Your task to perform on an android device: install app "Google Home" Image 0: 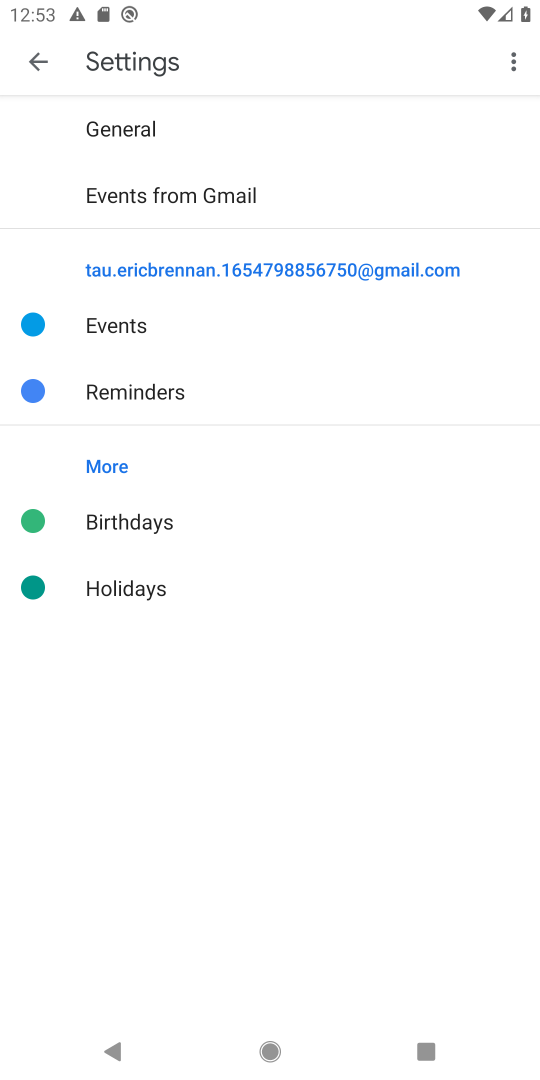
Step 0: press home button
Your task to perform on an android device: install app "Google Home" Image 1: 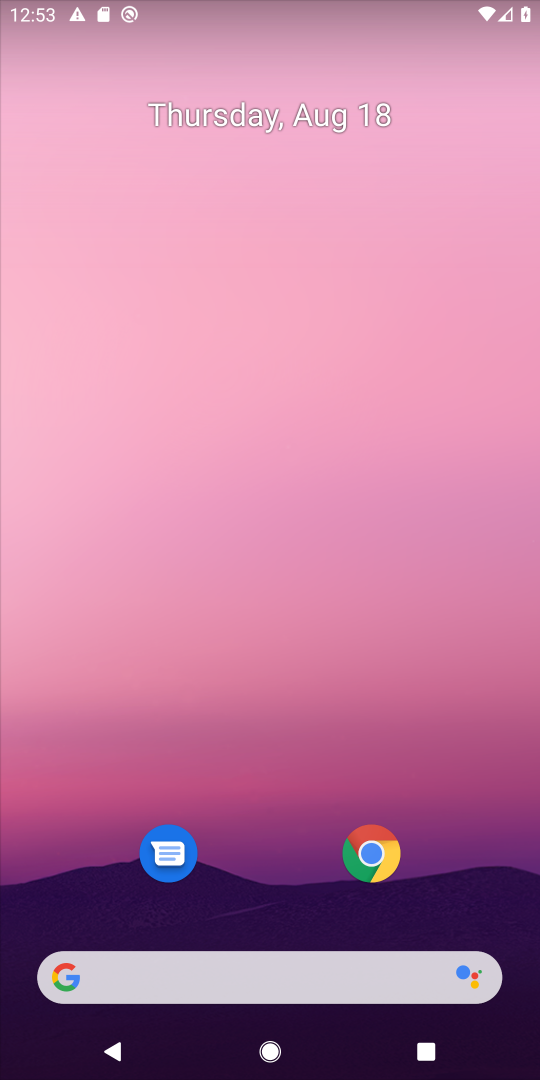
Step 1: drag from (246, 835) to (286, 37)
Your task to perform on an android device: install app "Google Home" Image 2: 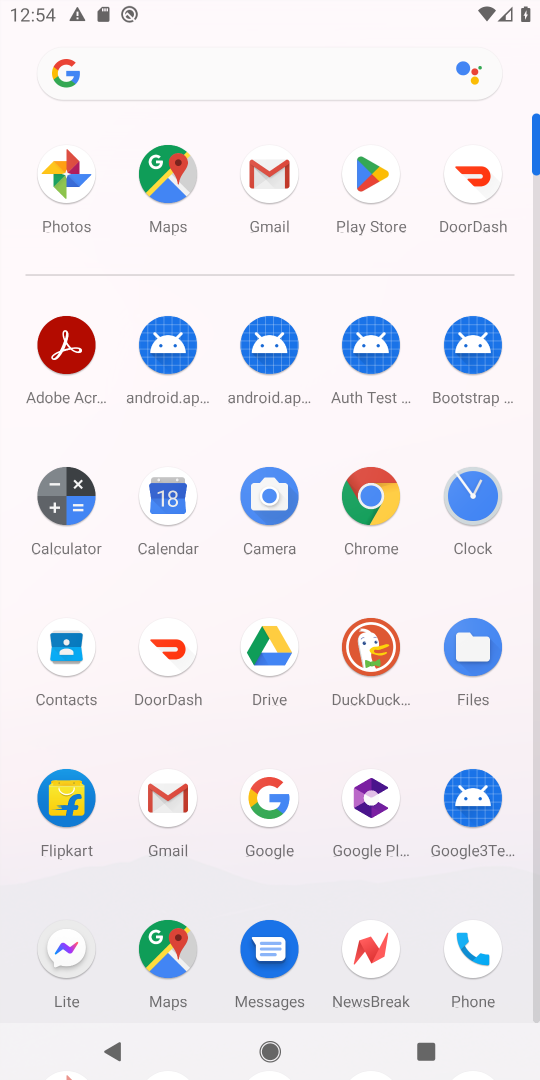
Step 2: click (364, 188)
Your task to perform on an android device: install app "Google Home" Image 3: 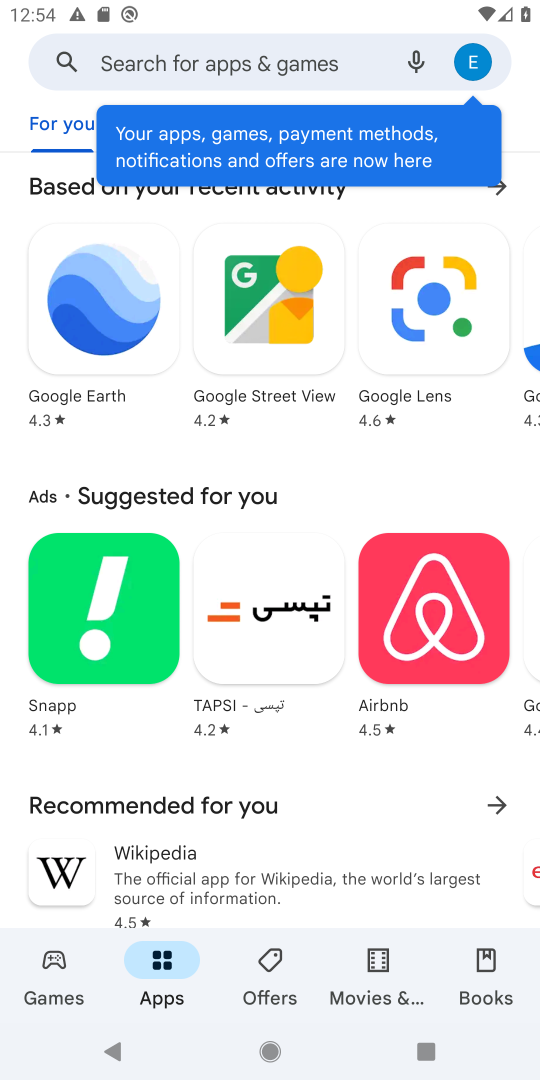
Step 3: click (221, 43)
Your task to perform on an android device: install app "Google Home" Image 4: 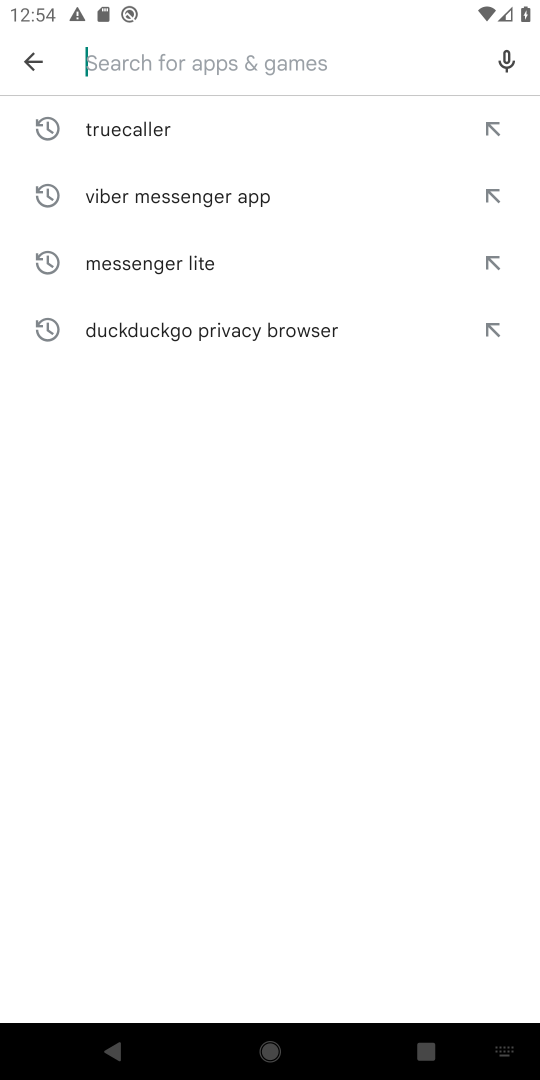
Step 4: type "Google Home"
Your task to perform on an android device: install app "Google Home" Image 5: 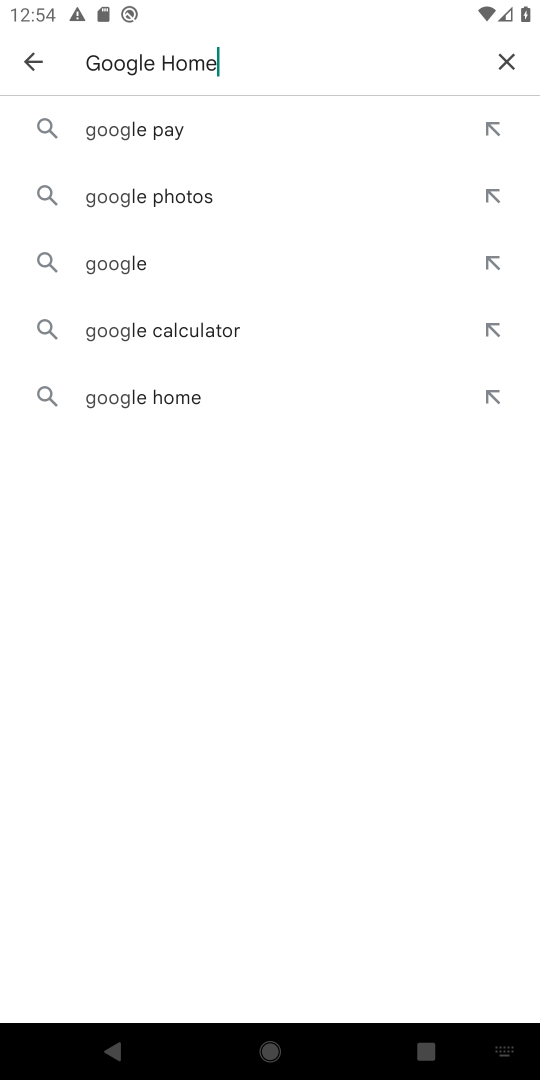
Step 5: type ""
Your task to perform on an android device: install app "Google Home" Image 6: 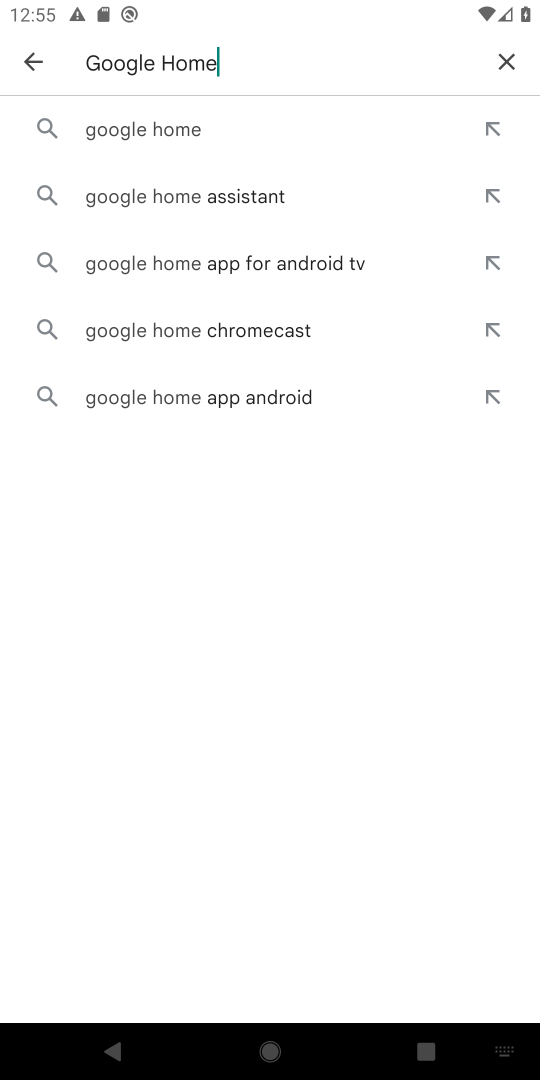
Step 6: click (137, 124)
Your task to perform on an android device: install app "Google Home" Image 7: 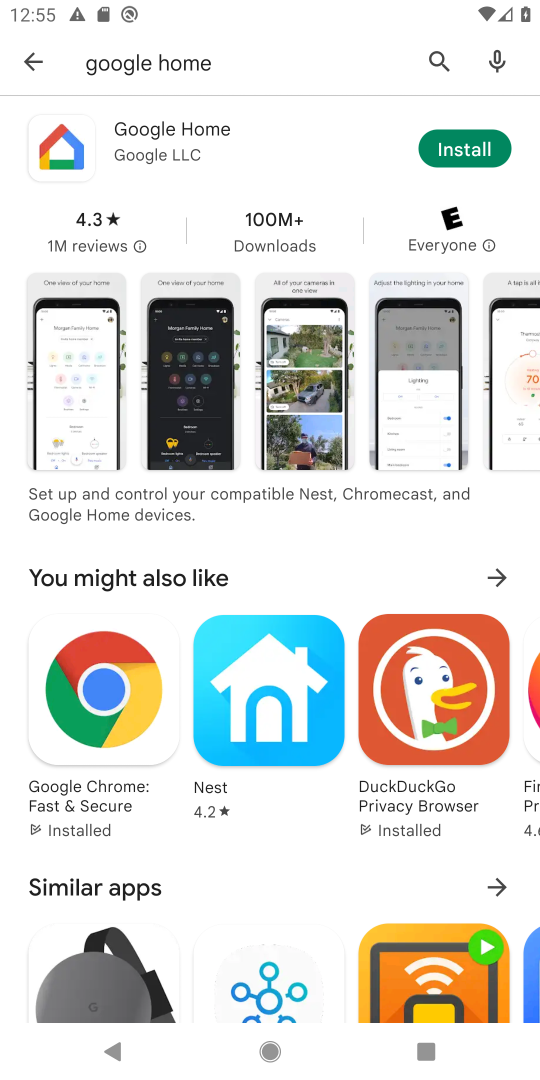
Step 7: click (458, 156)
Your task to perform on an android device: install app "Google Home" Image 8: 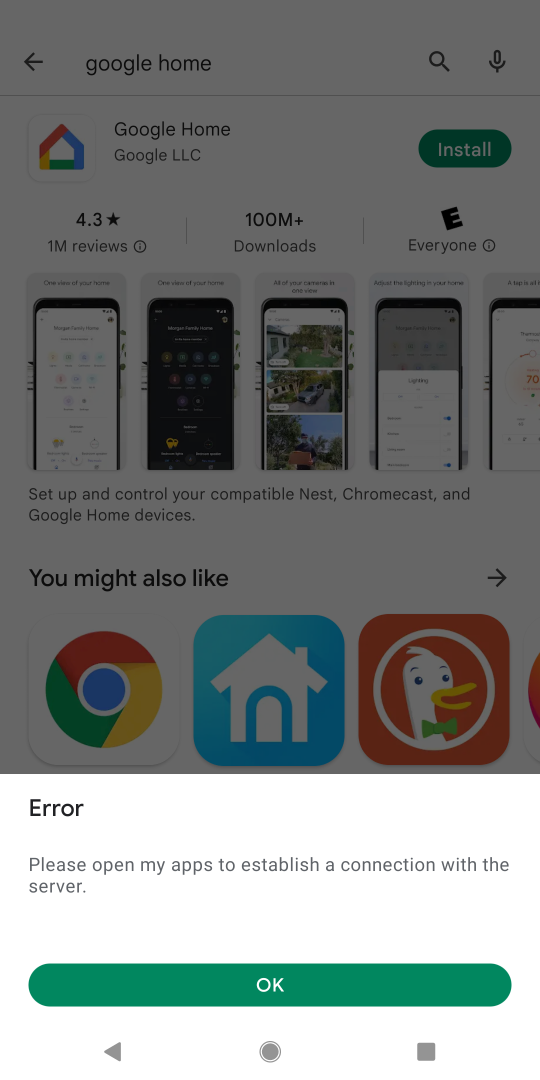
Step 8: click (233, 972)
Your task to perform on an android device: install app "Google Home" Image 9: 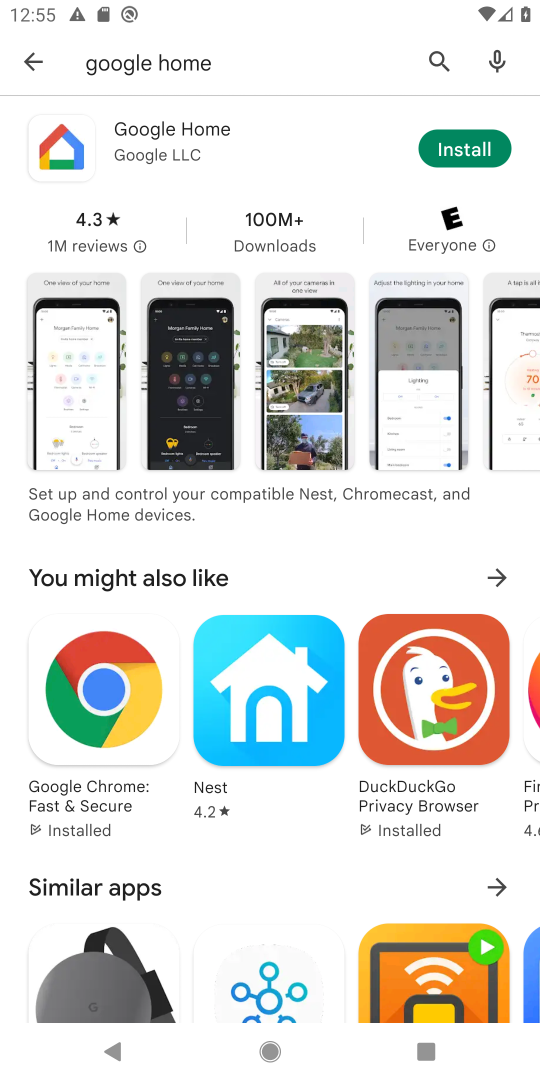
Step 9: click (490, 142)
Your task to perform on an android device: install app "Google Home" Image 10: 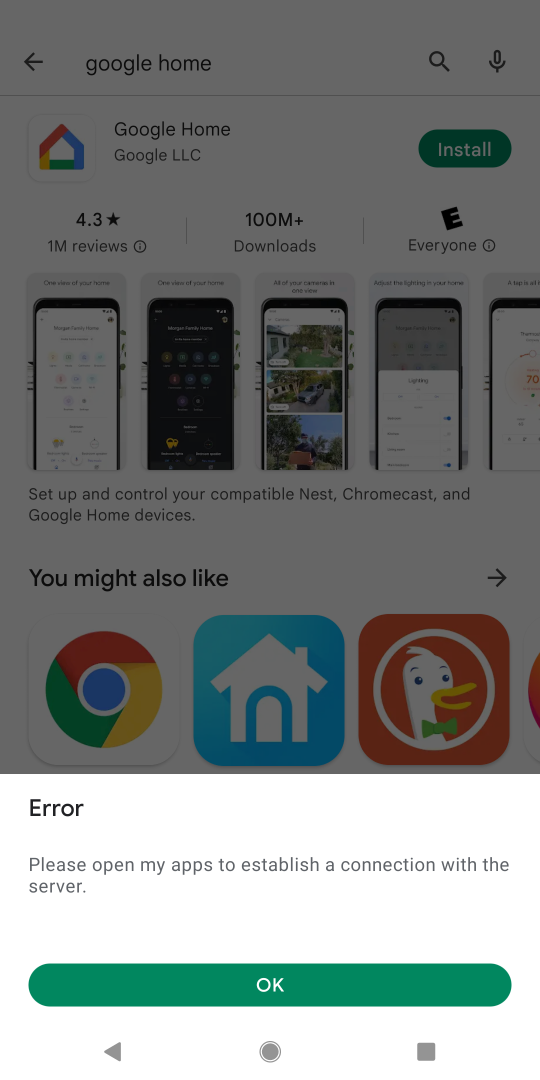
Step 10: task complete